Your task to perform on an android device: see creations saved in the google photos Image 0: 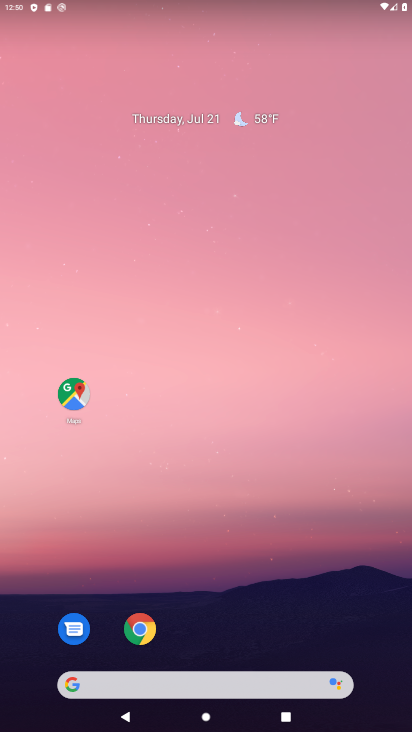
Step 0: drag from (185, 686) to (254, 231)
Your task to perform on an android device: see creations saved in the google photos Image 1: 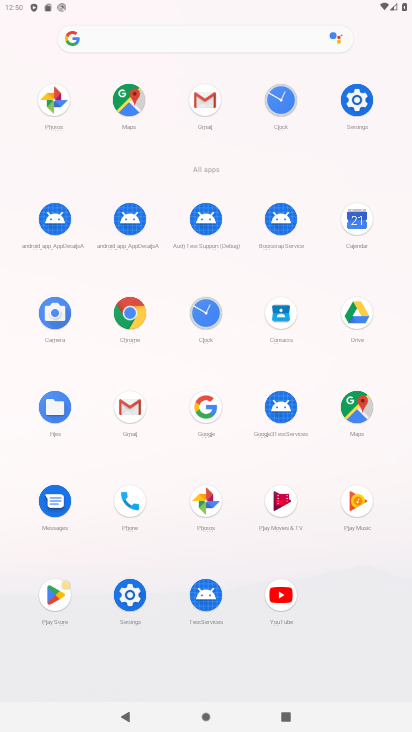
Step 1: click (56, 102)
Your task to perform on an android device: see creations saved in the google photos Image 2: 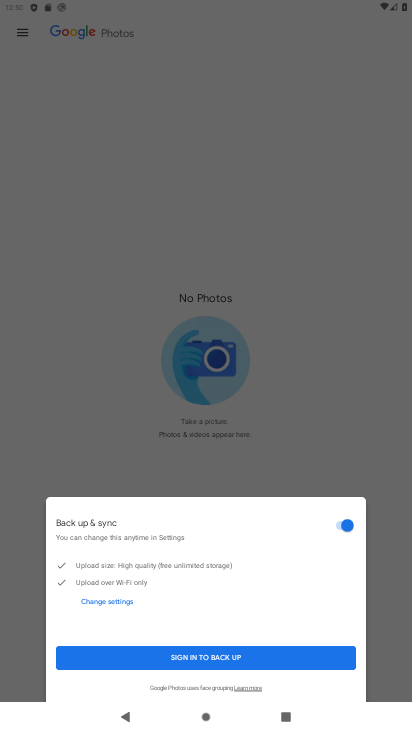
Step 2: click (201, 655)
Your task to perform on an android device: see creations saved in the google photos Image 3: 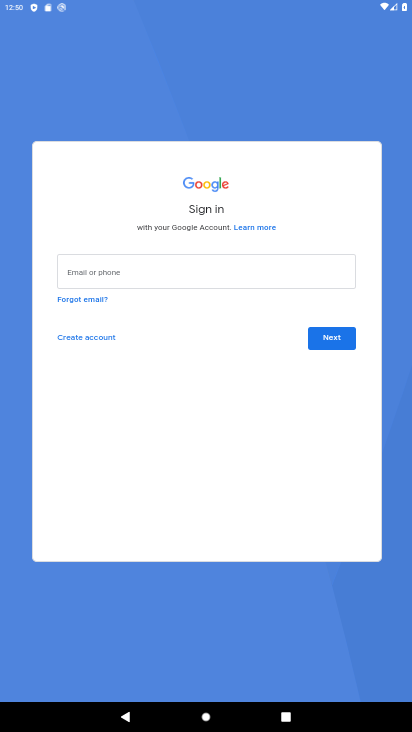
Step 3: click (335, 345)
Your task to perform on an android device: see creations saved in the google photos Image 4: 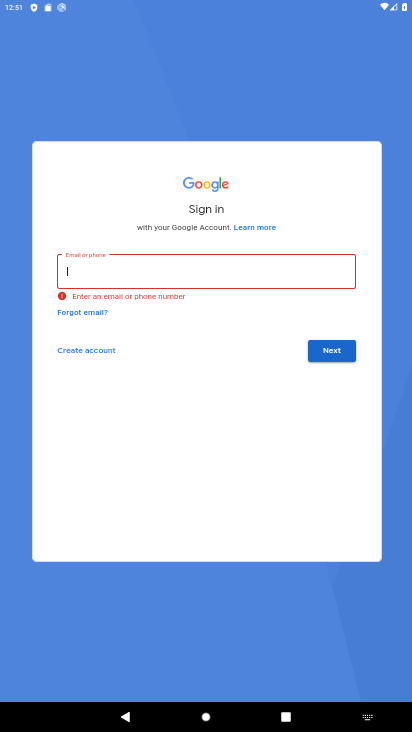
Step 4: task complete